Your task to perform on an android device: check out phone information Image 0: 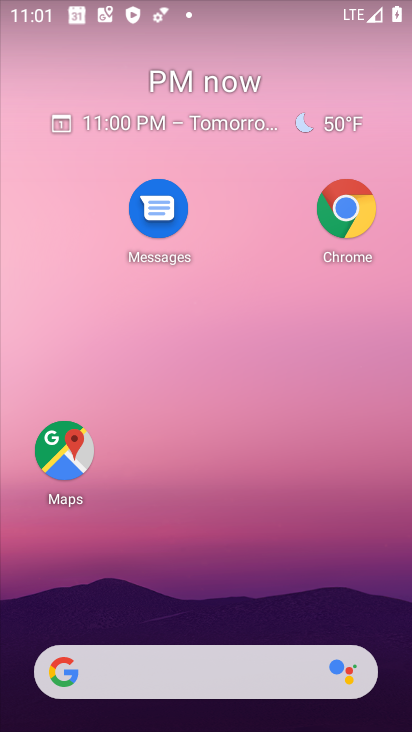
Step 0: drag from (206, 633) to (229, 19)
Your task to perform on an android device: check out phone information Image 1: 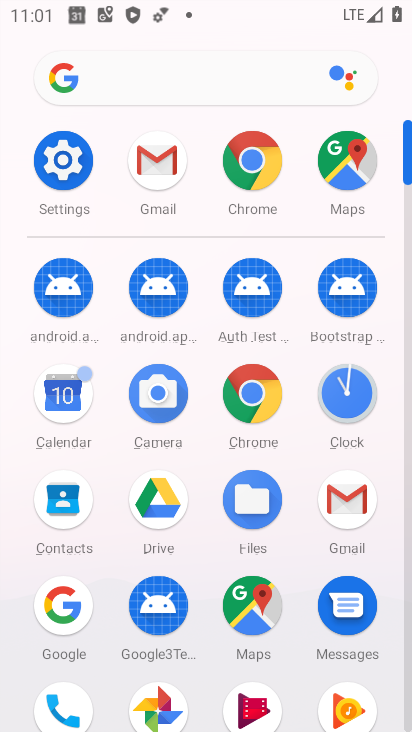
Step 1: click (62, 165)
Your task to perform on an android device: check out phone information Image 2: 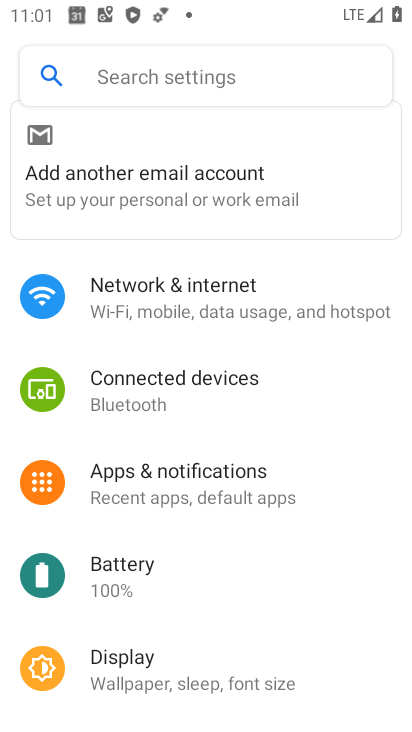
Step 2: drag from (236, 609) to (207, 22)
Your task to perform on an android device: check out phone information Image 3: 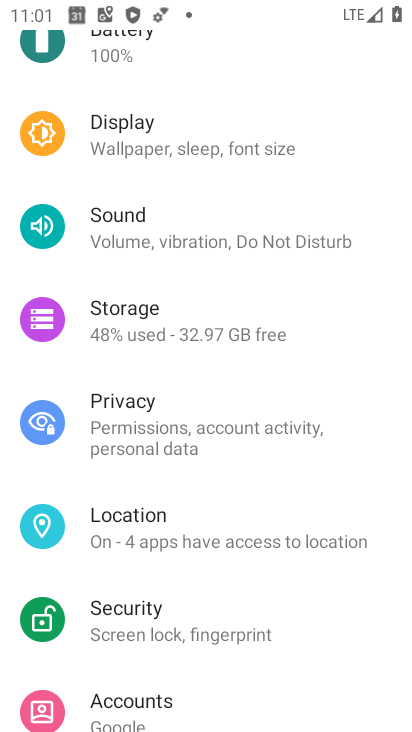
Step 3: drag from (250, 644) to (232, 27)
Your task to perform on an android device: check out phone information Image 4: 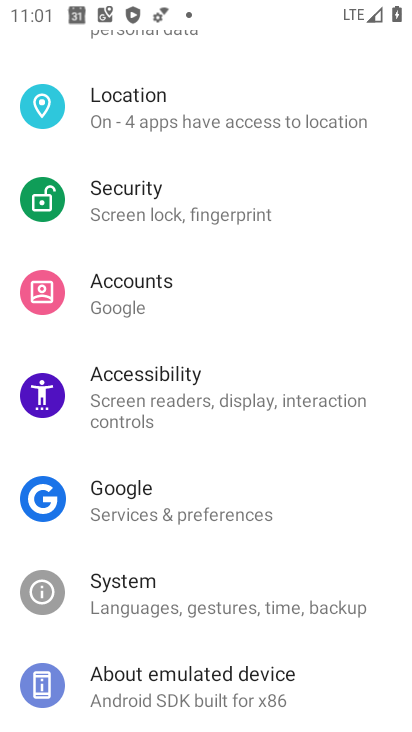
Step 4: click (221, 689)
Your task to perform on an android device: check out phone information Image 5: 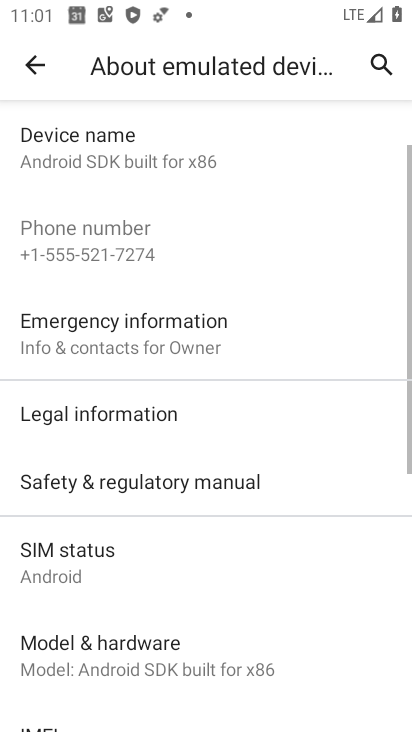
Step 5: task complete